Your task to perform on an android device: Do I have any events today? Image 0: 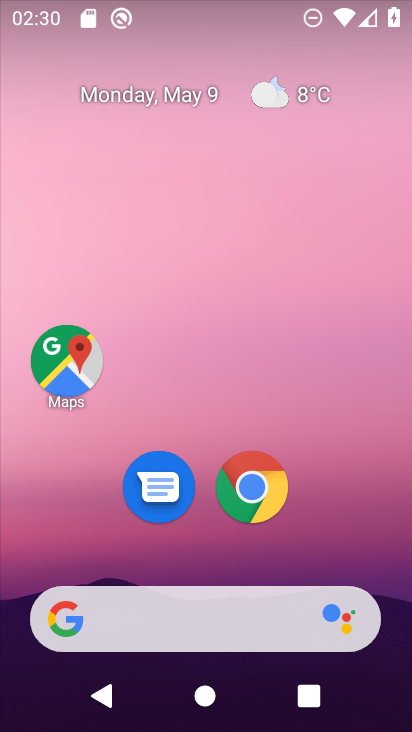
Step 0: drag from (351, 564) to (276, 23)
Your task to perform on an android device: Do I have any events today? Image 1: 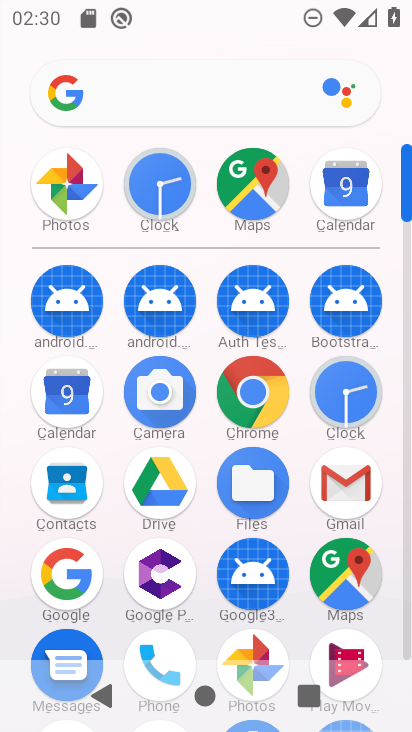
Step 1: click (77, 394)
Your task to perform on an android device: Do I have any events today? Image 2: 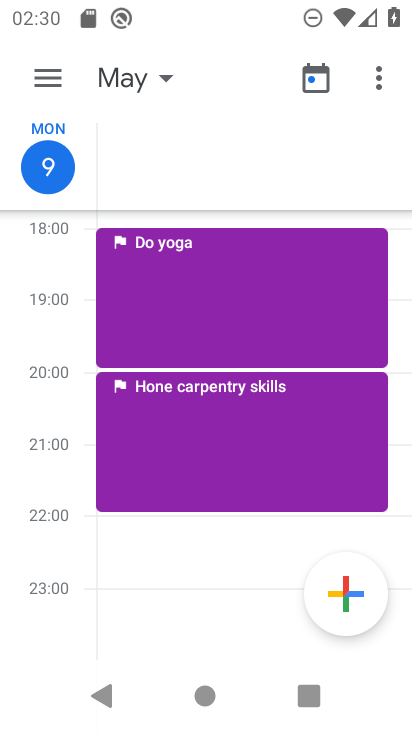
Step 2: task complete